Your task to perform on an android device: turn on location history Image 0: 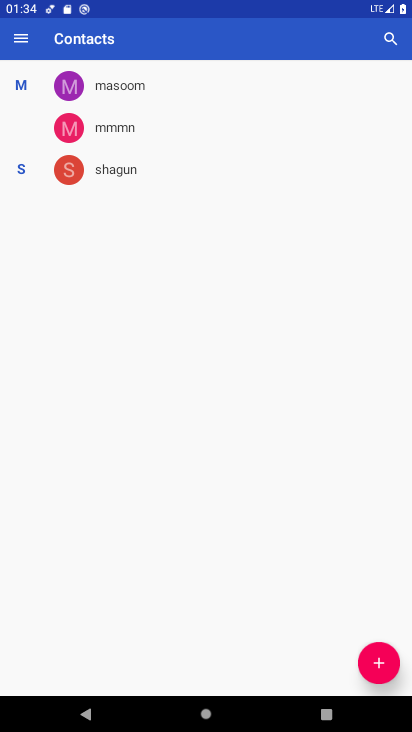
Step 0: press home button
Your task to perform on an android device: turn on location history Image 1: 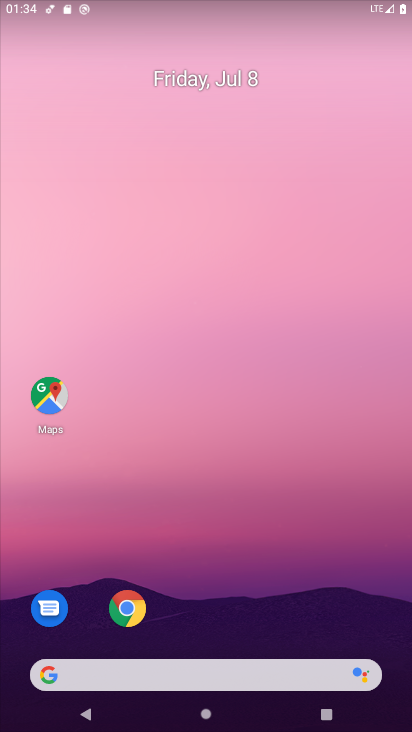
Step 1: drag from (202, 612) to (262, 207)
Your task to perform on an android device: turn on location history Image 2: 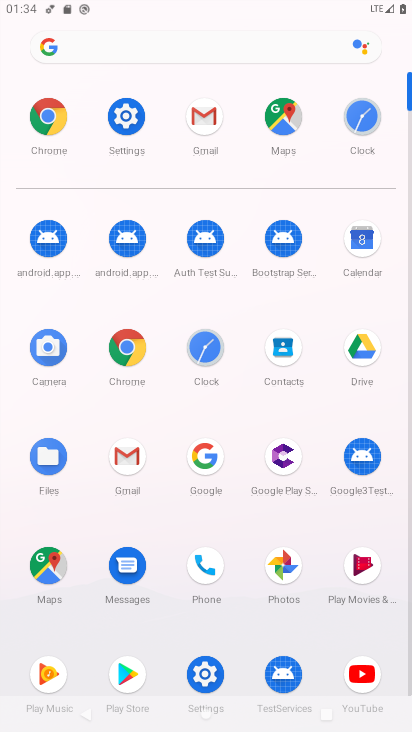
Step 2: click (136, 123)
Your task to perform on an android device: turn on location history Image 3: 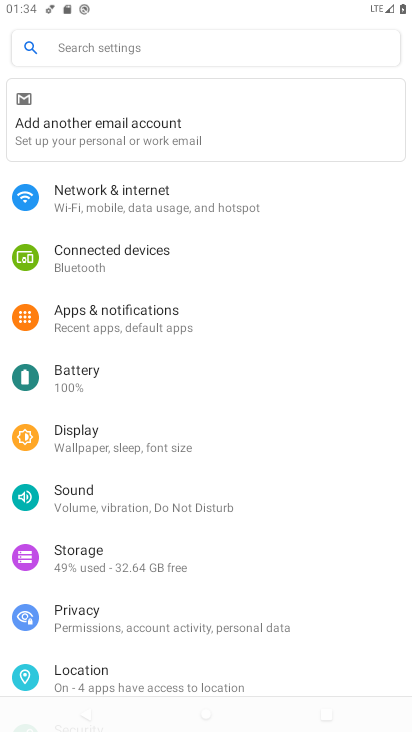
Step 3: drag from (109, 625) to (135, 442)
Your task to perform on an android device: turn on location history Image 4: 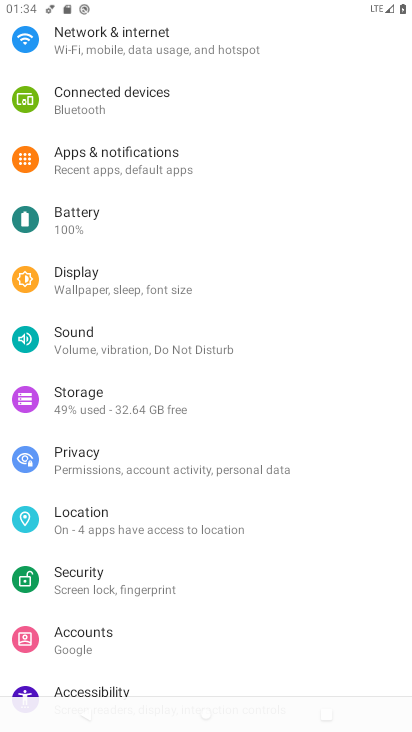
Step 4: click (113, 529)
Your task to perform on an android device: turn on location history Image 5: 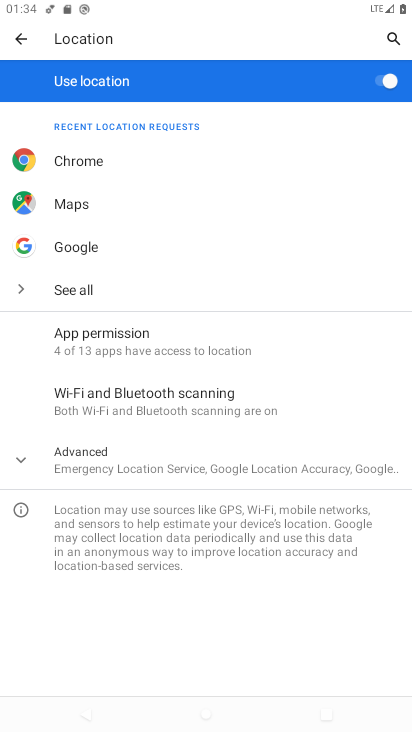
Step 5: click (143, 462)
Your task to perform on an android device: turn on location history Image 6: 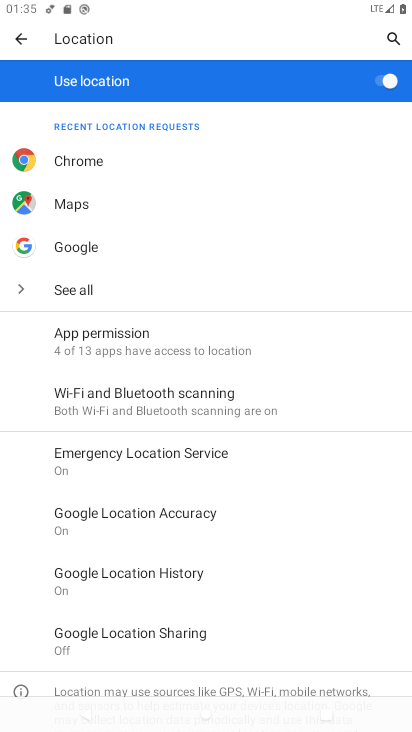
Step 6: click (166, 595)
Your task to perform on an android device: turn on location history Image 7: 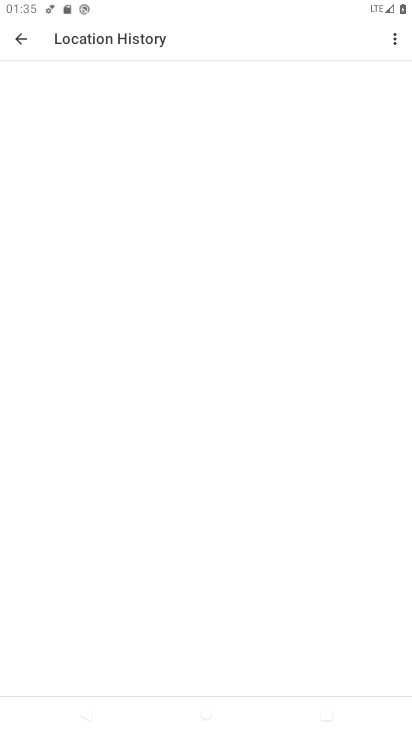
Step 7: task complete